Your task to perform on an android device: open chrome and create a bookmark for the current page Image 0: 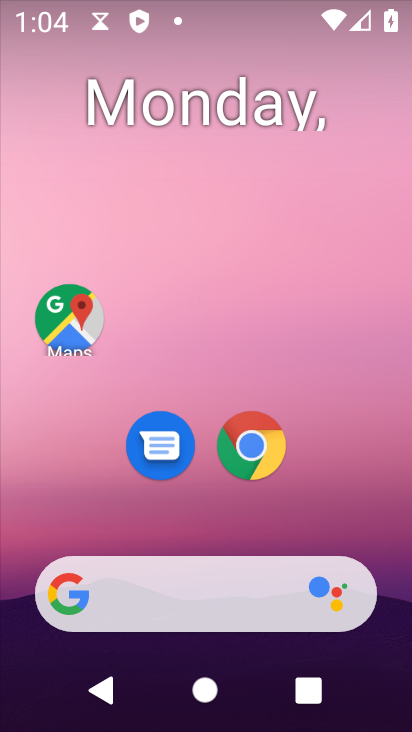
Step 0: drag from (256, 672) to (180, 260)
Your task to perform on an android device: open chrome and create a bookmark for the current page Image 1: 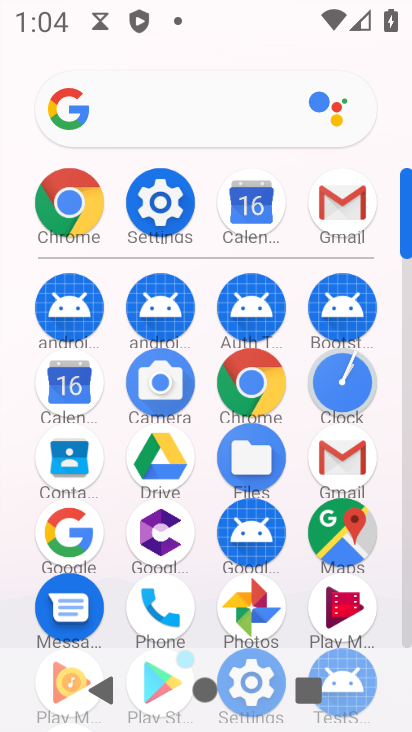
Step 1: click (66, 205)
Your task to perform on an android device: open chrome and create a bookmark for the current page Image 2: 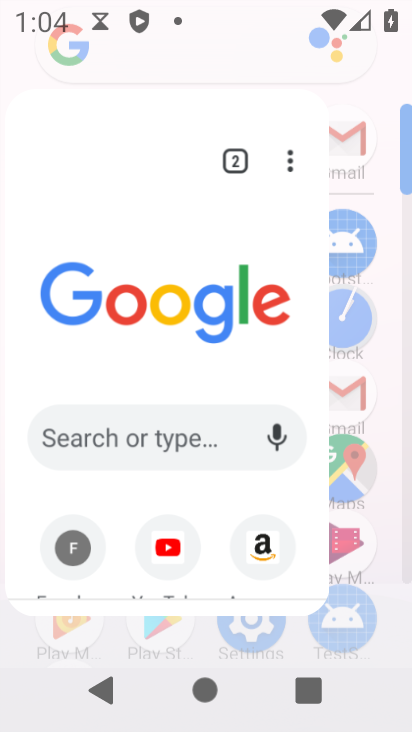
Step 2: click (73, 202)
Your task to perform on an android device: open chrome and create a bookmark for the current page Image 3: 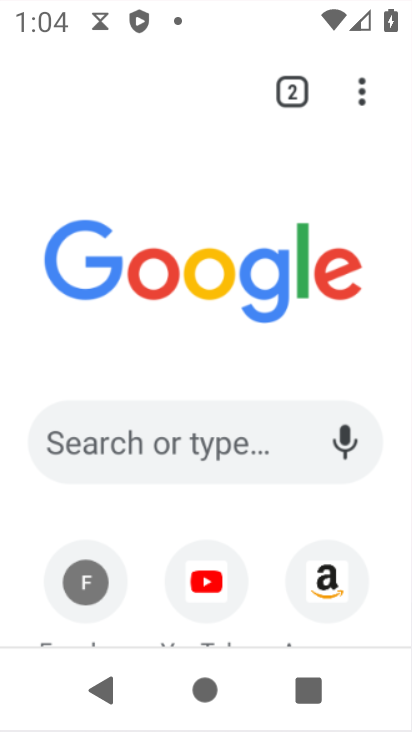
Step 3: click (76, 202)
Your task to perform on an android device: open chrome and create a bookmark for the current page Image 4: 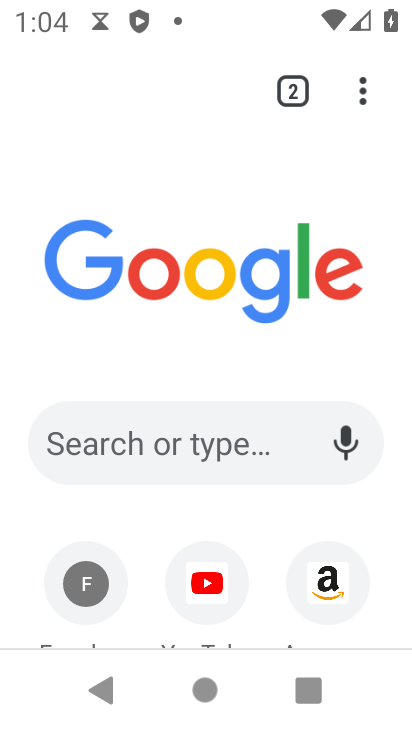
Step 4: click (357, 94)
Your task to perform on an android device: open chrome and create a bookmark for the current page Image 5: 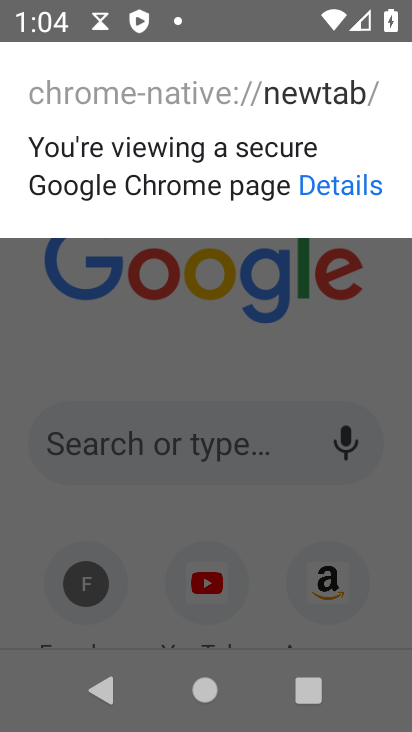
Step 5: click (319, 337)
Your task to perform on an android device: open chrome and create a bookmark for the current page Image 6: 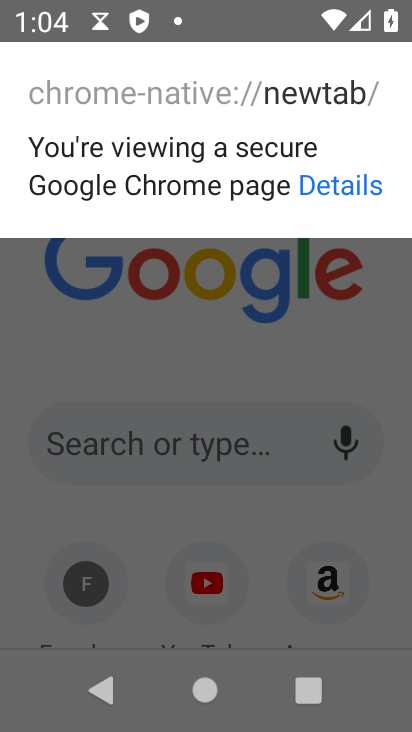
Step 6: click (318, 338)
Your task to perform on an android device: open chrome and create a bookmark for the current page Image 7: 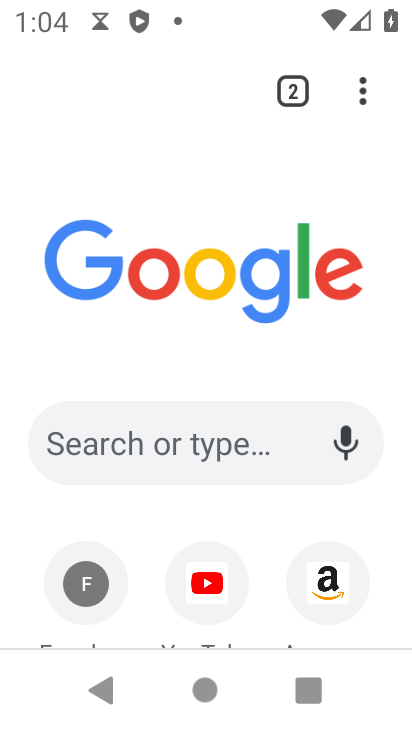
Step 7: click (319, 340)
Your task to perform on an android device: open chrome and create a bookmark for the current page Image 8: 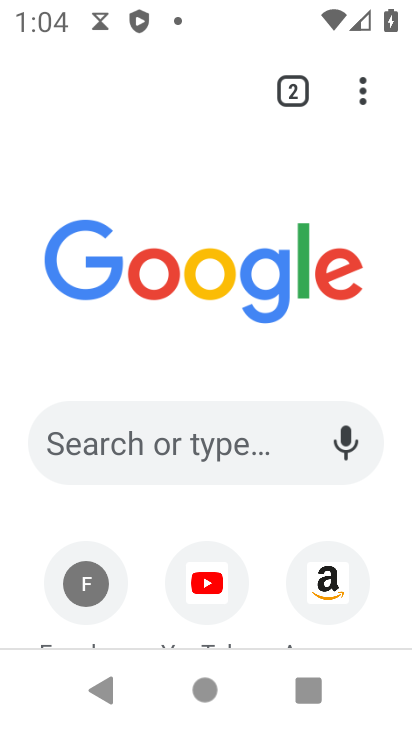
Step 8: drag from (359, 94) to (92, 179)
Your task to perform on an android device: open chrome and create a bookmark for the current page Image 9: 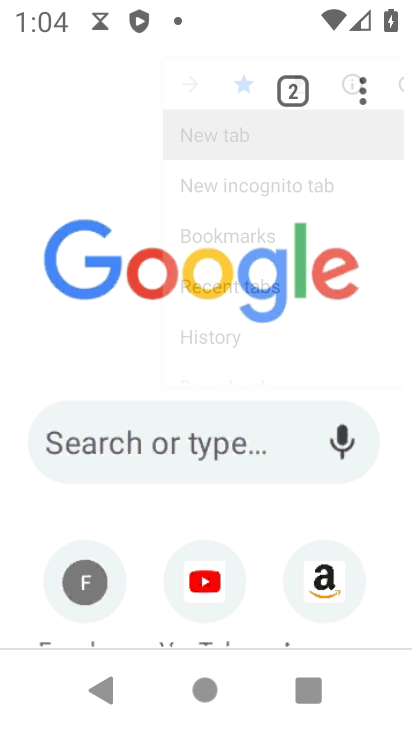
Step 9: click (92, 179)
Your task to perform on an android device: open chrome and create a bookmark for the current page Image 10: 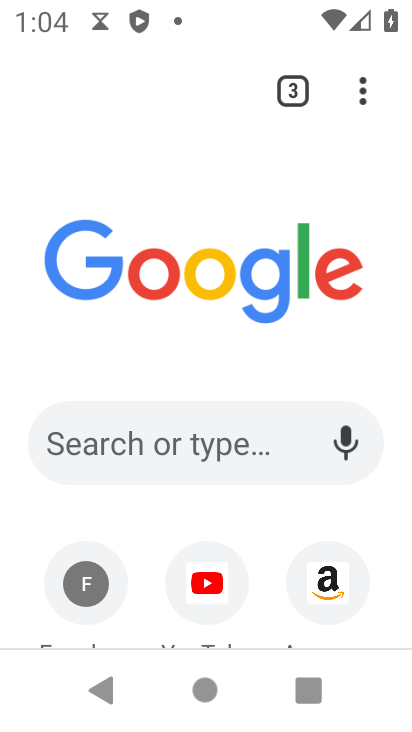
Step 10: click (82, 432)
Your task to perform on an android device: open chrome and create a bookmark for the current page Image 11: 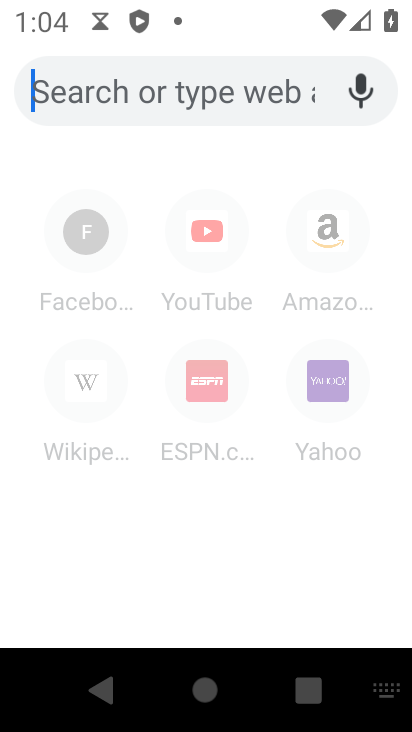
Step 11: type "www.sanpdeal.com"
Your task to perform on an android device: open chrome and create a bookmark for the current page Image 12: 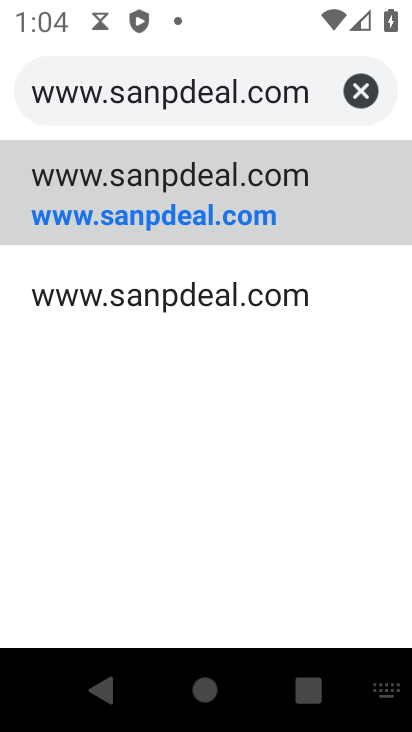
Step 12: click (161, 206)
Your task to perform on an android device: open chrome and create a bookmark for the current page Image 13: 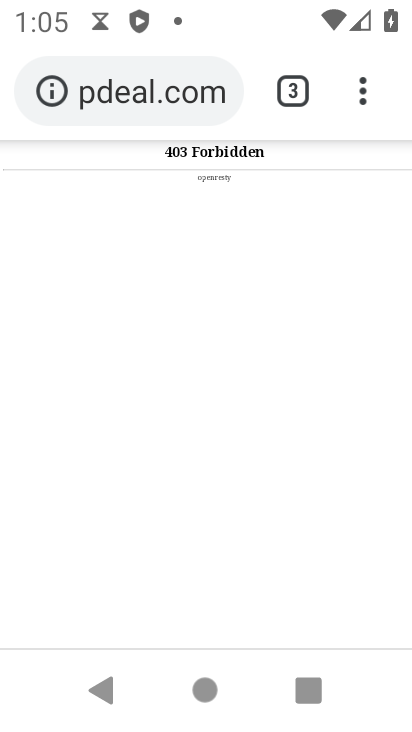
Step 13: task complete